Your task to perform on an android device: check the backup settings in the google photos Image 0: 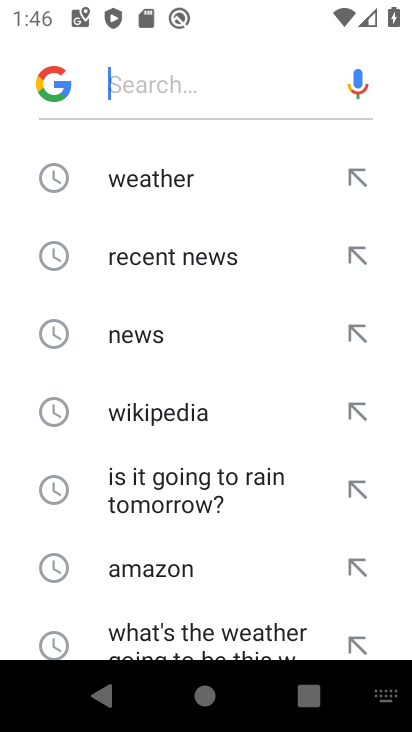
Step 0: press home button
Your task to perform on an android device: check the backup settings in the google photos Image 1: 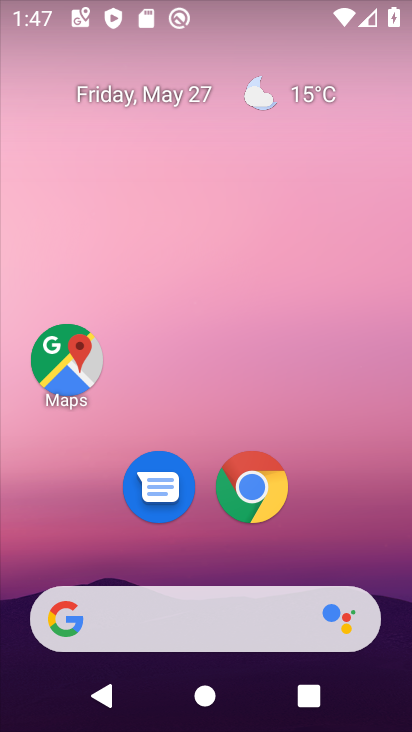
Step 1: drag from (331, 486) to (284, 121)
Your task to perform on an android device: check the backup settings in the google photos Image 2: 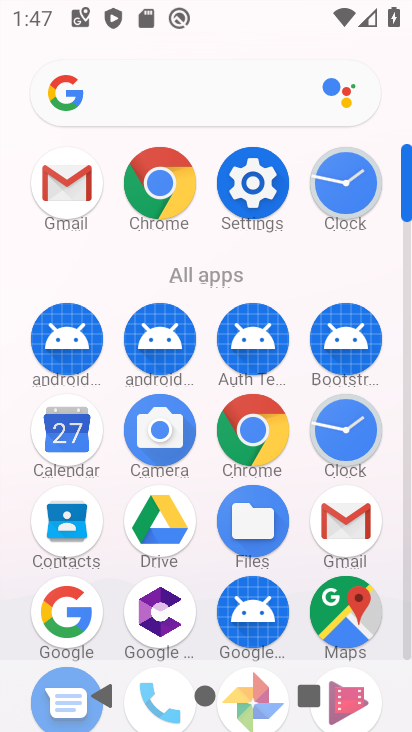
Step 2: drag from (294, 550) to (307, 298)
Your task to perform on an android device: check the backup settings in the google photos Image 3: 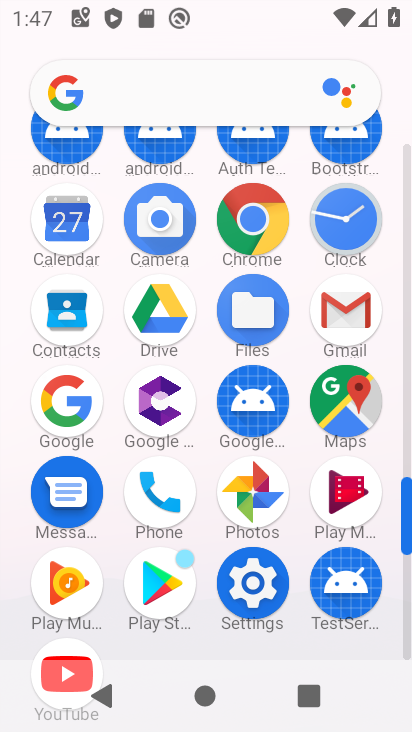
Step 3: click (288, 495)
Your task to perform on an android device: check the backup settings in the google photos Image 4: 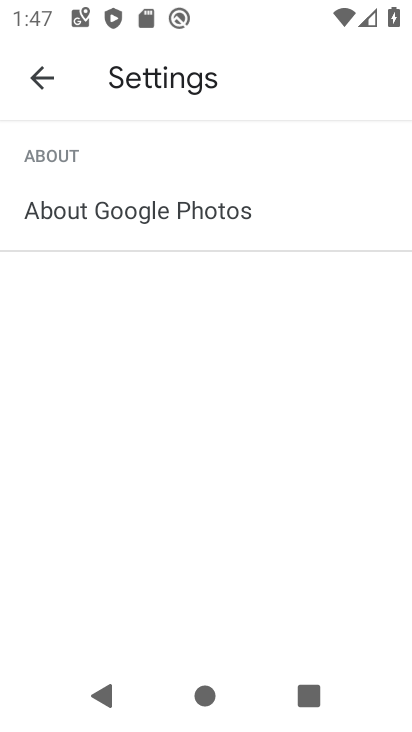
Step 4: click (26, 81)
Your task to perform on an android device: check the backup settings in the google photos Image 5: 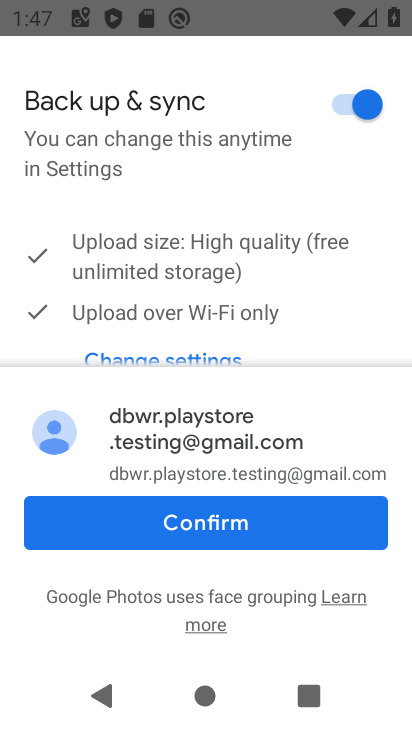
Step 5: click (284, 530)
Your task to perform on an android device: check the backup settings in the google photos Image 6: 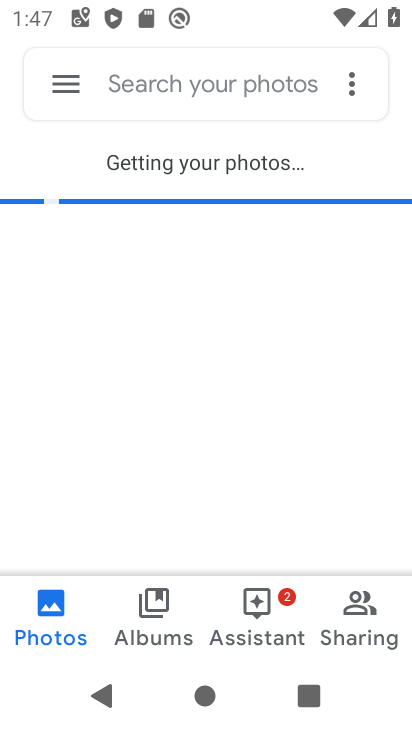
Step 6: click (68, 66)
Your task to perform on an android device: check the backup settings in the google photos Image 7: 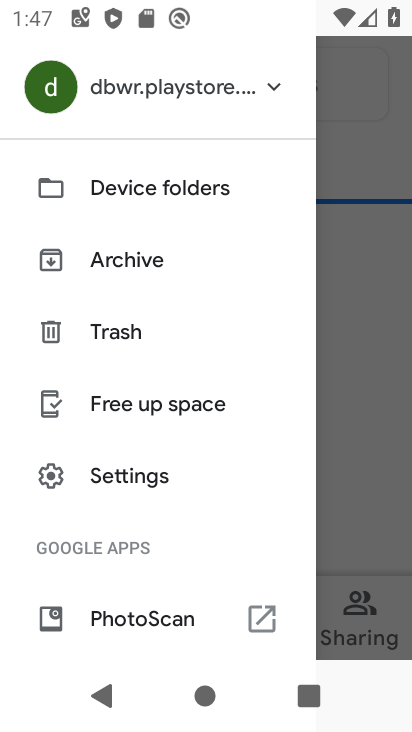
Step 7: click (151, 497)
Your task to perform on an android device: check the backup settings in the google photos Image 8: 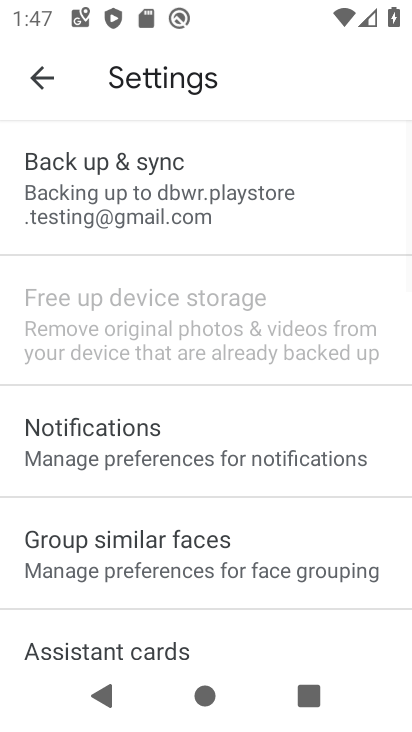
Step 8: click (170, 200)
Your task to perform on an android device: check the backup settings in the google photos Image 9: 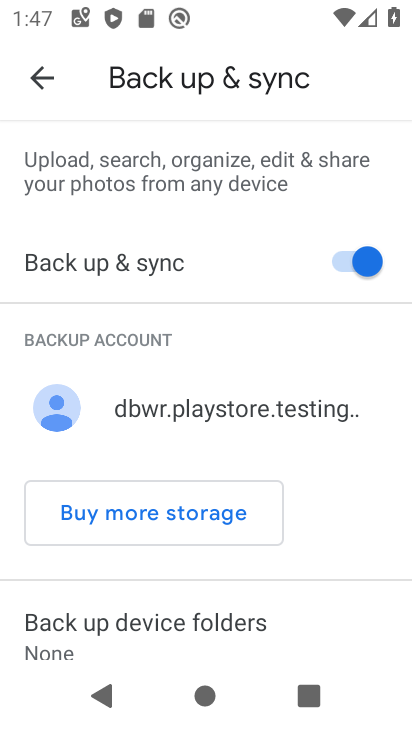
Step 9: task complete